Your task to perform on an android device: change timer sound Image 0: 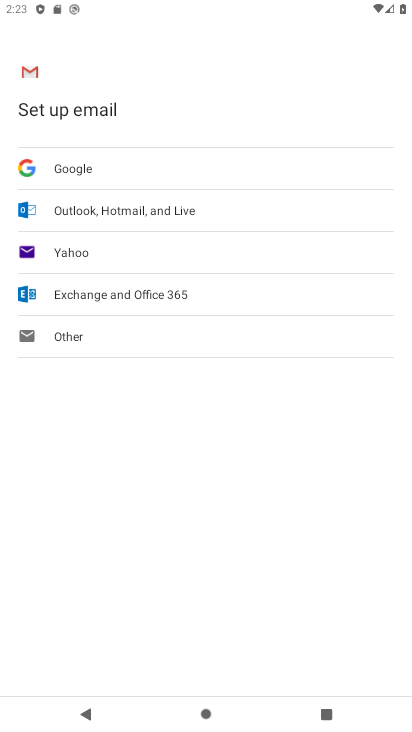
Step 0: drag from (148, 566) to (216, 219)
Your task to perform on an android device: change timer sound Image 1: 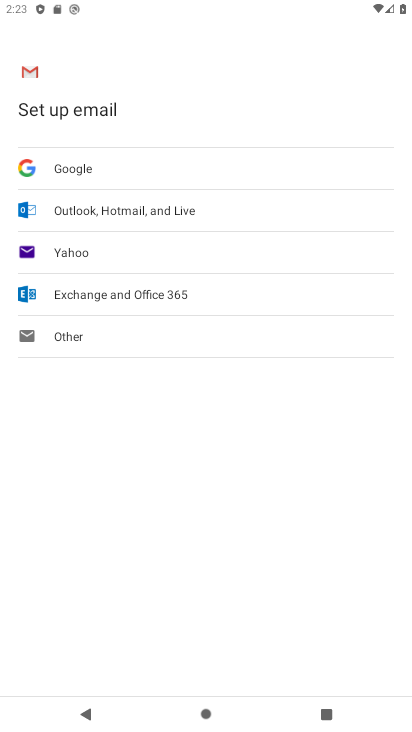
Step 1: press home button
Your task to perform on an android device: change timer sound Image 2: 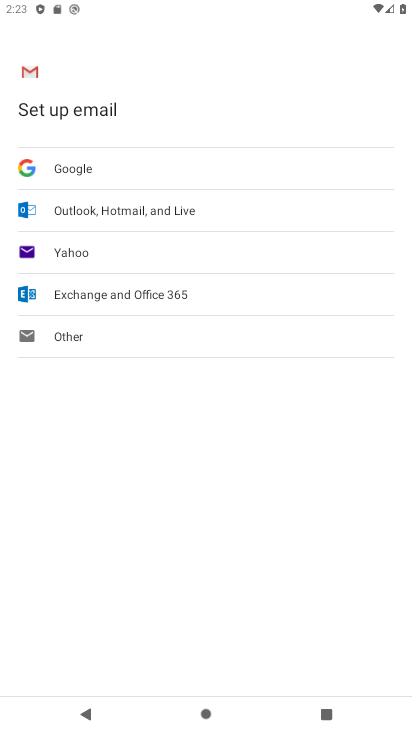
Step 2: press home button
Your task to perform on an android device: change timer sound Image 3: 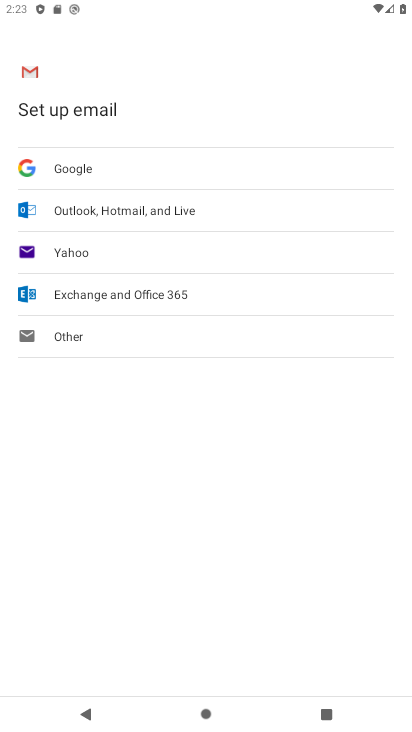
Step 3: click (244, 113)
Your task to perform on an android device: change timer sound Image 4: 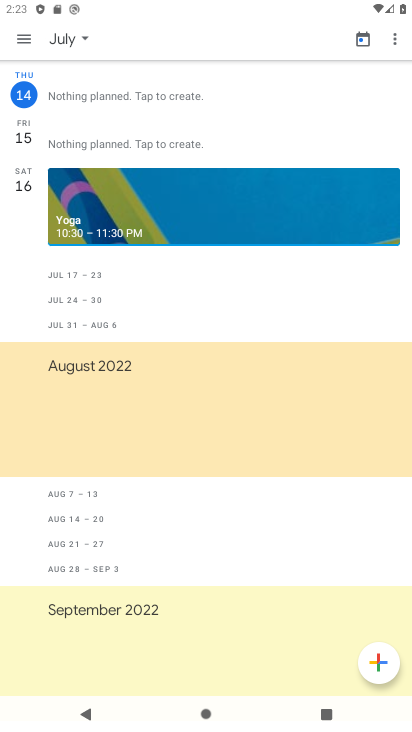
Step 4: drag from (180, 479) to (188, 232)
Your task to perform on an android device: change timer sound Image 5: 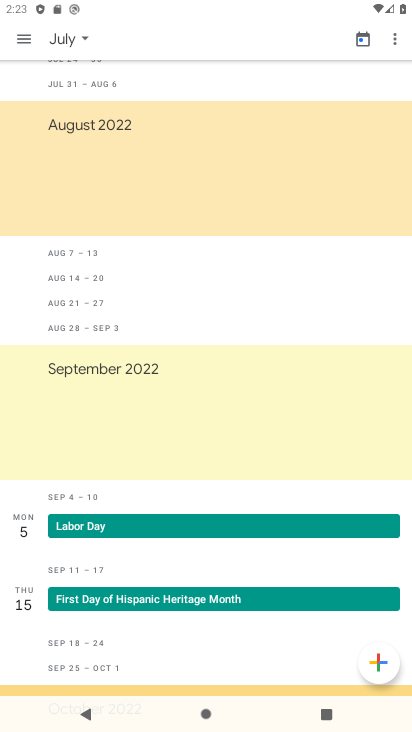
Step 5: press home button
Your task to perform on an android device: change timer sound Image 6: 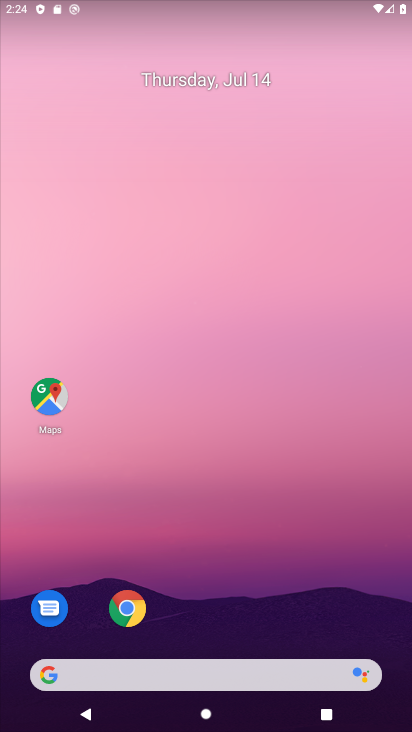
Step 6: drag from (221, 381) to (252, 158)
Your task to perform on an android device: change timer sound Image 7: 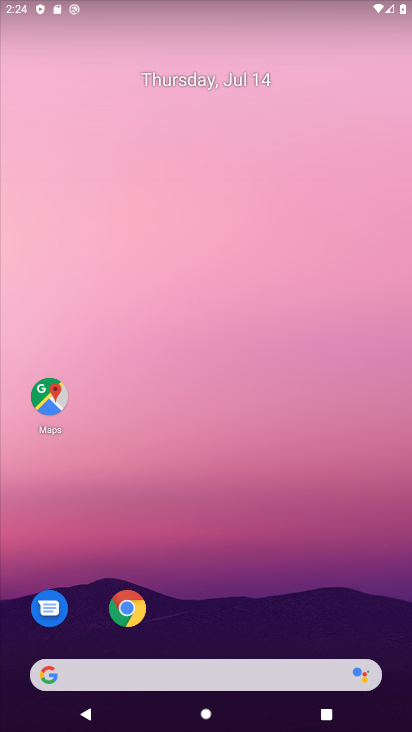
Step 7: click (234, 51)
Your task to perform on an android device: change timer sound Image 8: 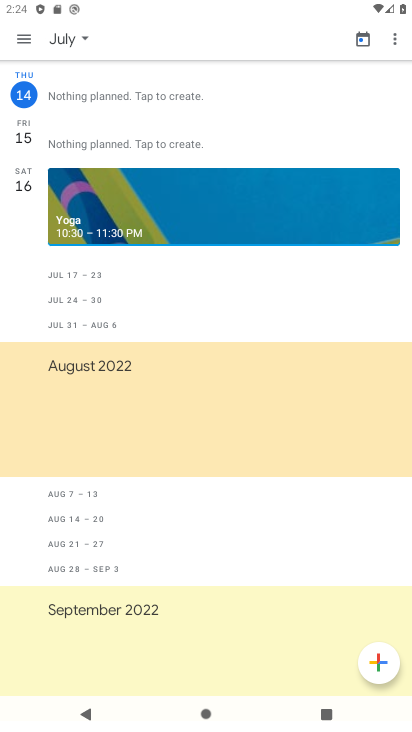
Step 8: press home button
Your task to perform on an android device: change timer sound Image 9: 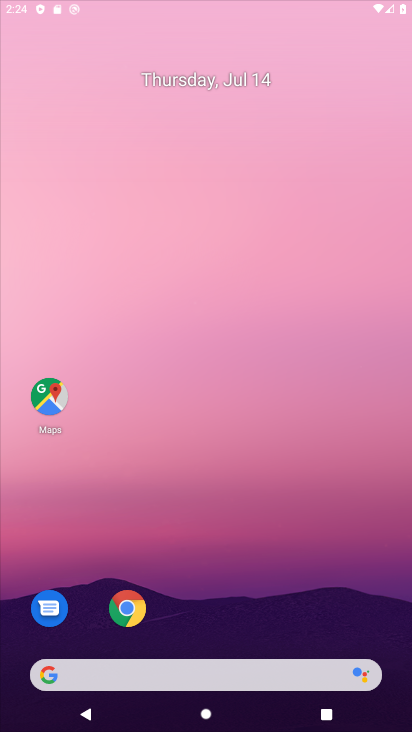
Step 9: drag from (245, 551) to (237, 277)
Your task to perform on an android device: change timer sound Image 10: 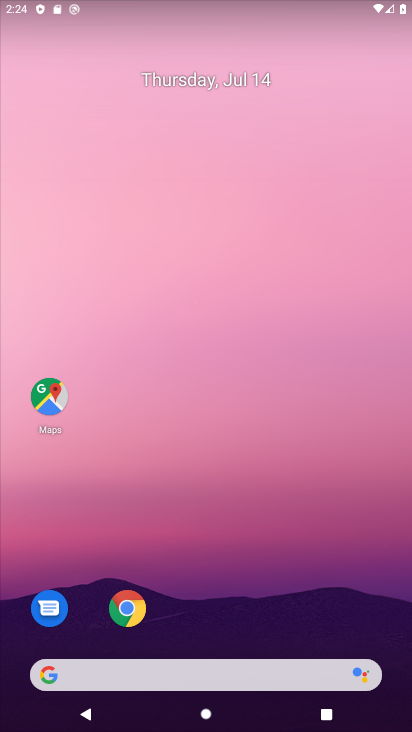
Step 10: drag from (171, 623) to (282, 98)
Your task to perform on an android device: change timer sound Image 11: 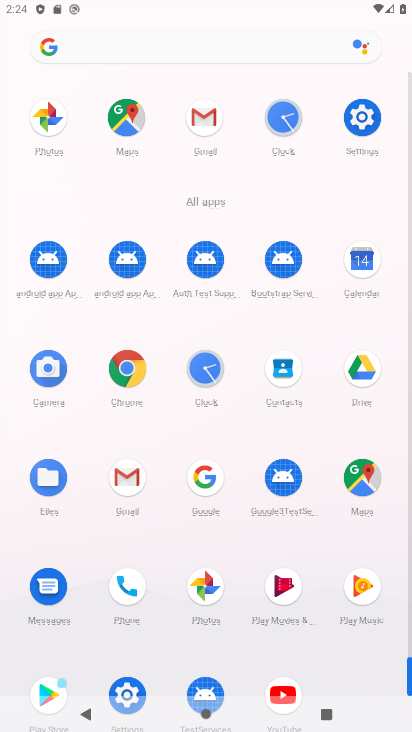
Step 11: click (197, 376)
Your task to perform on an android device: change timer sound Image 12: 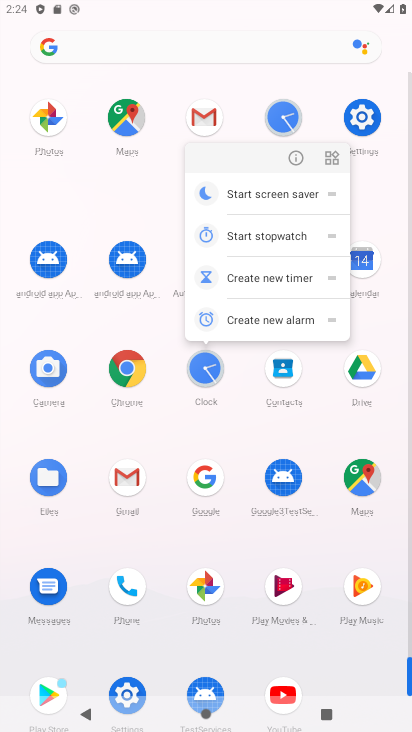
Step 12: click (291, 163)
Your task to perform on an android device: change timer sound Image 13: 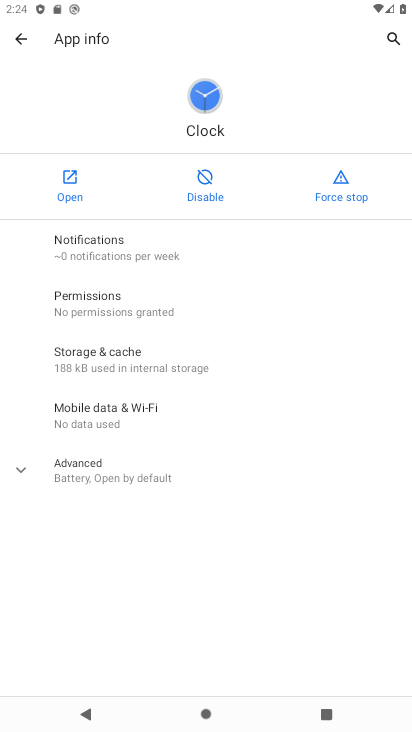
Step 13: click (68, 193)
Your task to perform on an android device: change timer sound Image 14: 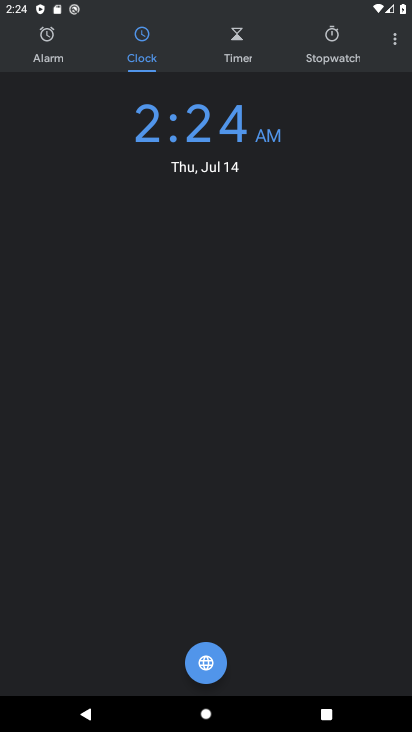
Step 14: click (249, 29)
Your task to perform on an android device: change timer sound Image 15: 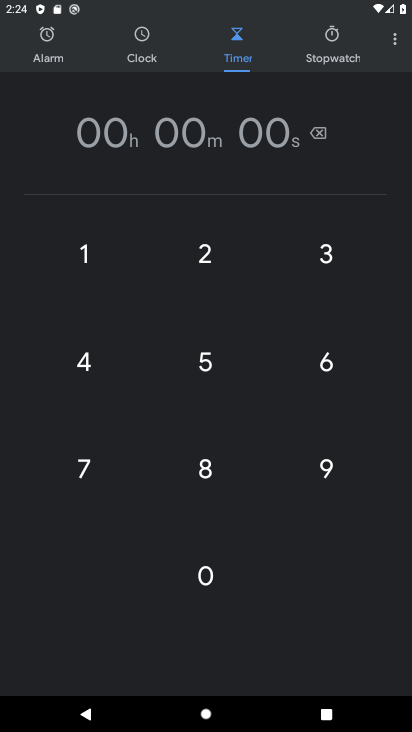
Step 15: click (399, 40)
Your task to perform on an android device: change timer sound Image 16: 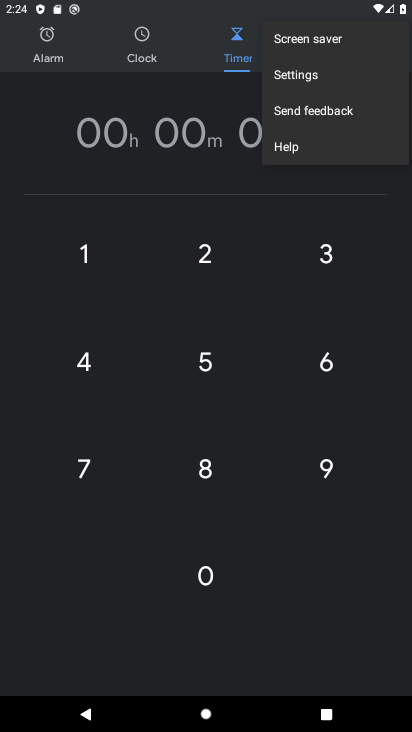
Step 16: click (336, 57)
Your task to perform on an android device: change timer sound Image 17: 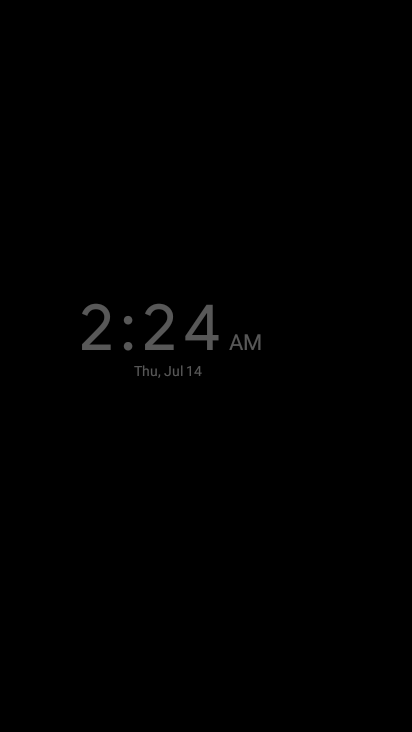
Step 17: click (170, 296)
Your task to perform on an android device: change timer sound Image 18: 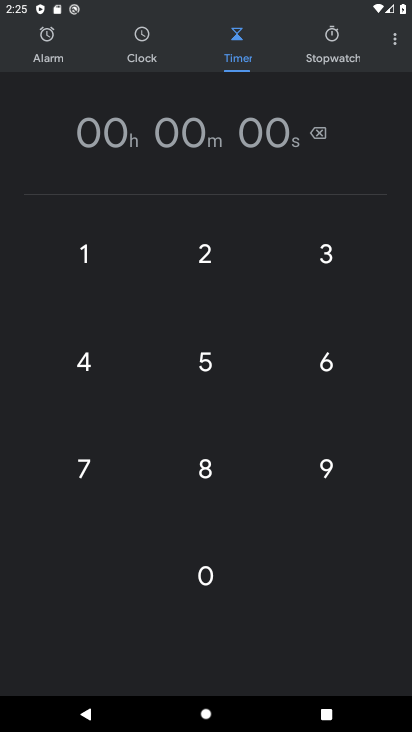
Step 18: click (399, 28)
Your task to perform on an android device: change timer sound Image 19: 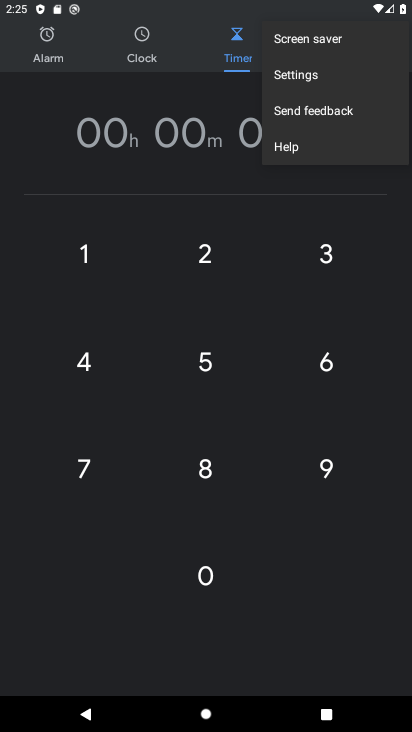
Step 19: click (341, 77)
Your task to perform on an android device: change timer sound Image 20: 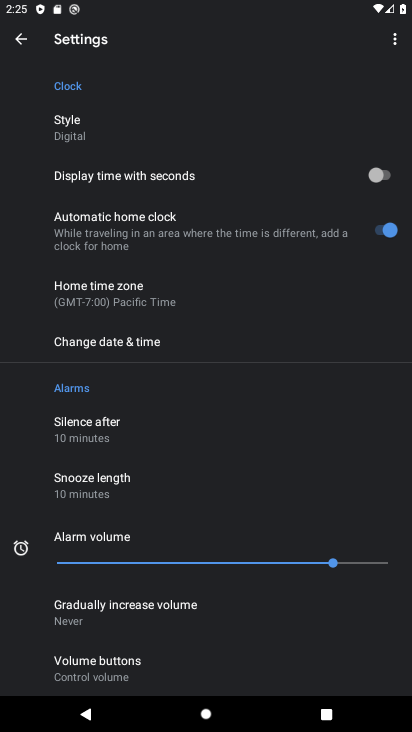
Step 20: drag from (172, 548) to (231, 313)
Your task to perform on an android device: change timer sound Image 21: 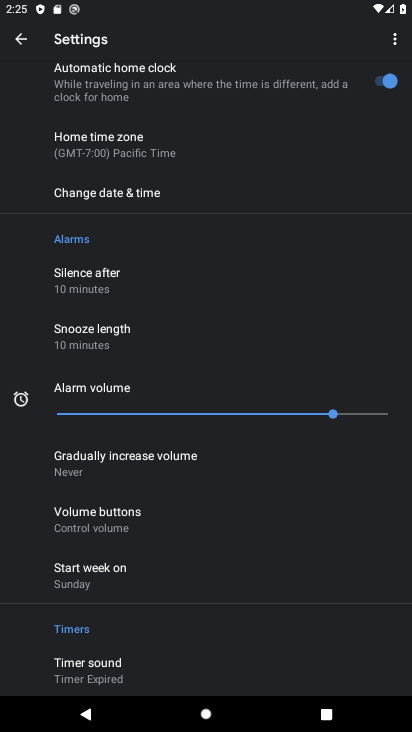
Step 21: click (144, 665)
Your task to perform on an android device: change timer sound Image 22: 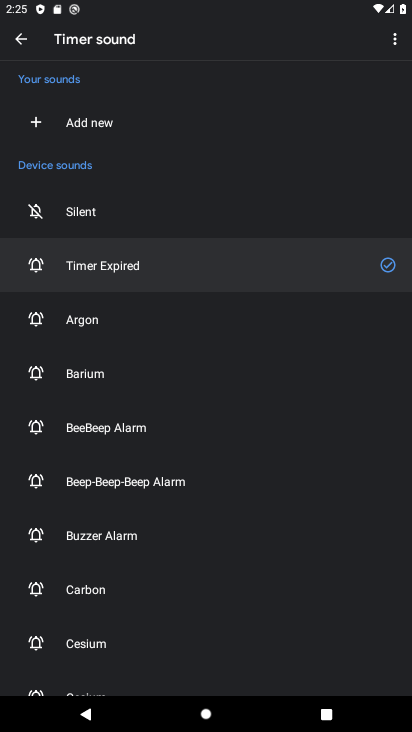
Step 22: drag from (200, 486) to (226, 348)
Your task to perform on an android device: change timer sound Image 23: 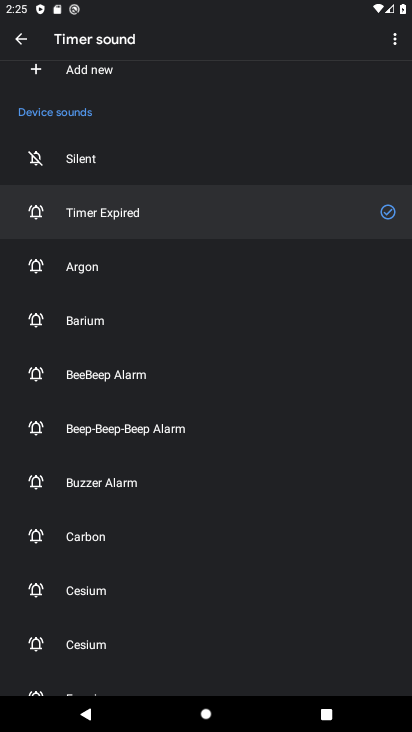
Step 23: click (241, 310)
Your task to perform on an android device: change timer sound Image 24: 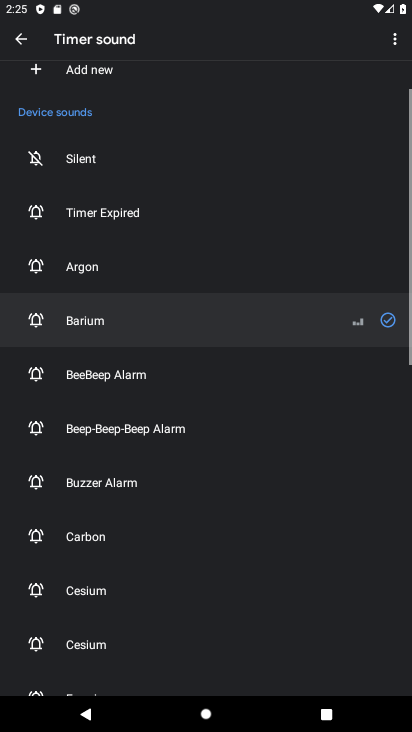
Step 24: task complete